Your task to perform on an android device: Open Google Chrome and click the shortcut for Amazon.com Image 0: 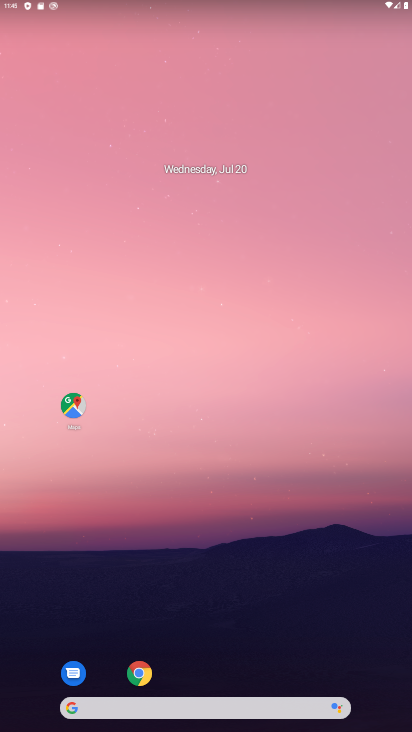
Step 0: click (132, 669)
Your task to perform on an android device: Open Google Chrome and click the shortcut for Amazon.com Image 1: 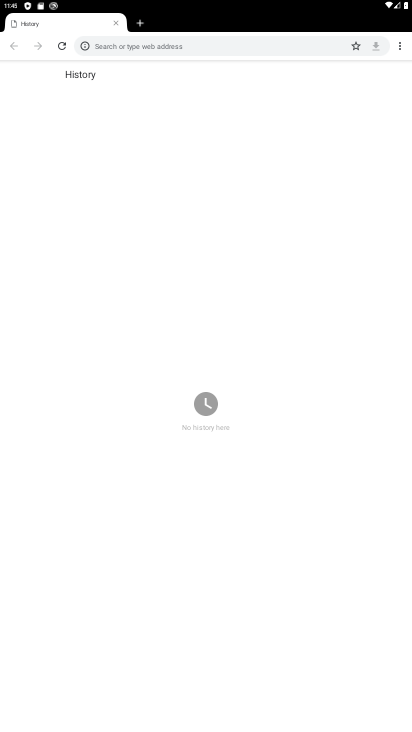
Step 1: click (108, 23)
Your task to perform on an android device: Open Google Chrome and click the shortcut for Amazon.com Image 2: 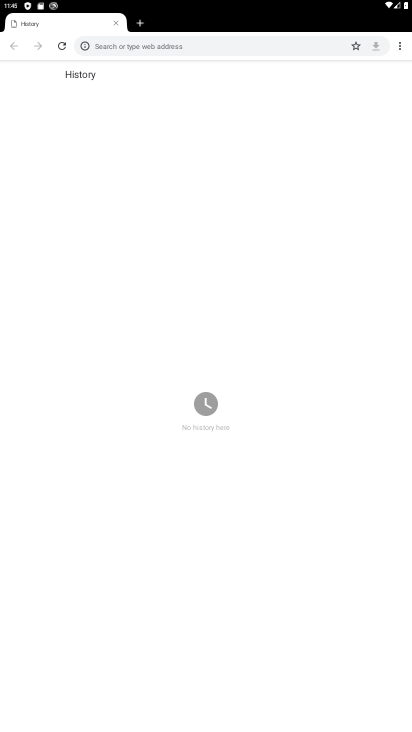
Step 2: click (112, 25)
Your task to perform on an android device: Open Google Chrome and click the shortcut for Amazon.com Image 3: 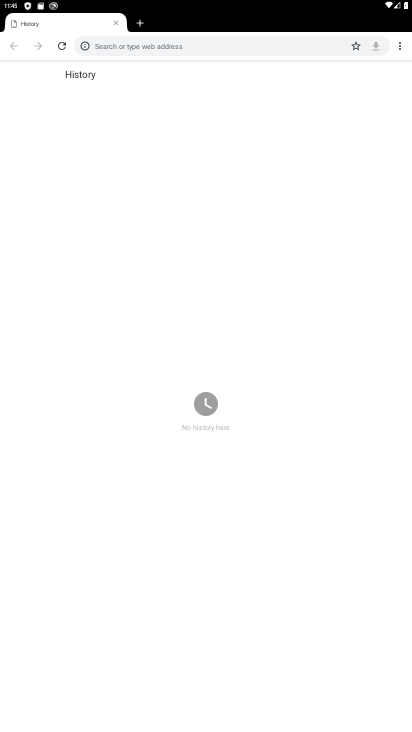
Step 3: click (138, 23)
Your task to perform on an android device: Open Google Chrome and click the shortcut for Amazon.com Image 4: 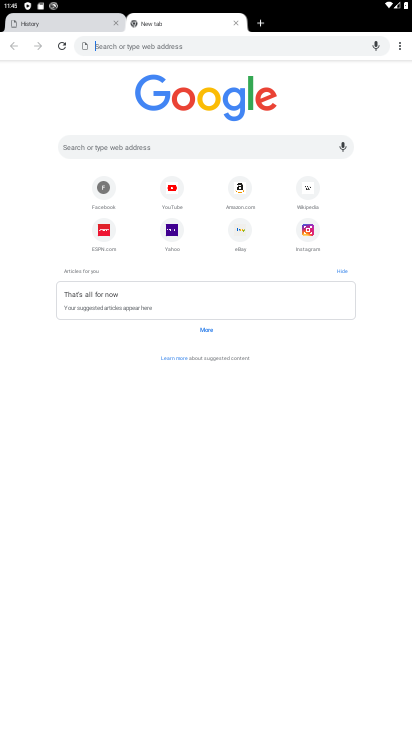
Step 4: click (237, 187)
Your task to perform on an android device: Open Google Chrome and click the shortcut for Amazon.com Image 5: 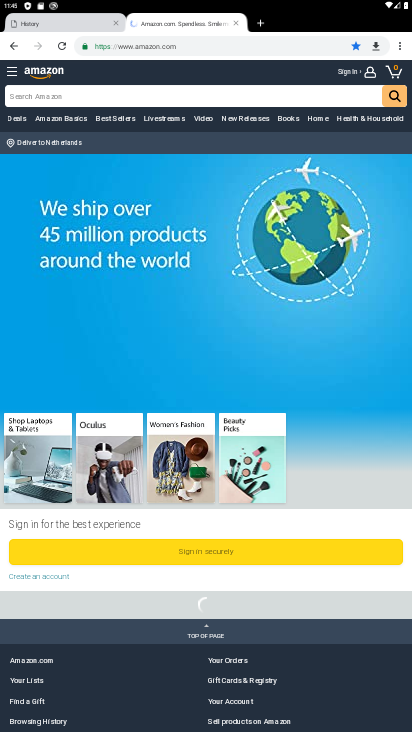
Step 5: click (115, 22)
Your task to perform on an android device: Open Google Chrome and click the shortcut for Amazon.com Image 6: 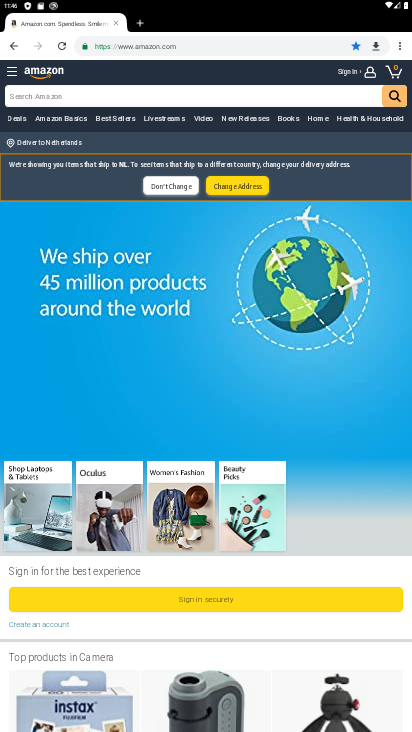
Step 6: task complete